Your task to perform on an android device: Clear the cart on walmart.com. Image 0: 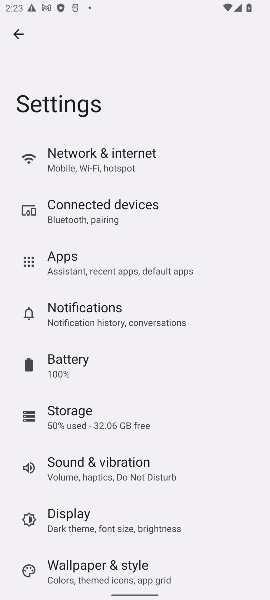
Step 0: press home button
Your task to perform on an android device: Clear the cart on walmart.com. Image 1: 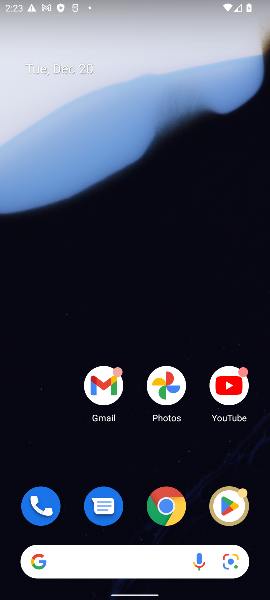
Step 1: click (165, 515)
Your task to perform on an android device: Clear the cart on walmart.com. Image 2: 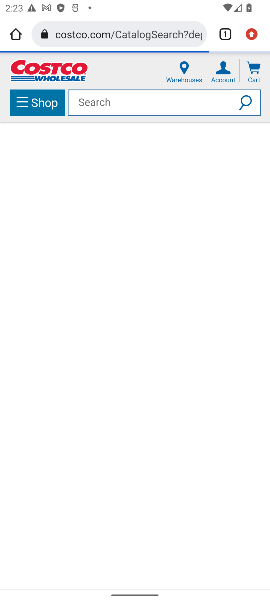
Step 2: click (114, 35)
Your task to perform on an android device: Clear the cart on walmart.com. Image 3: 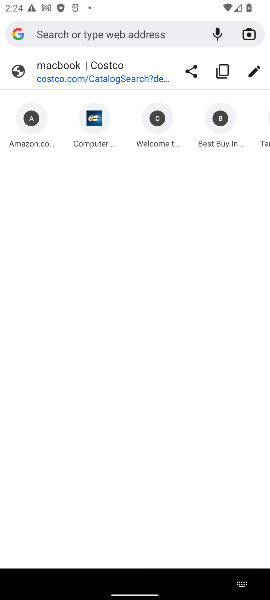
Step 3: type "walmart"
Your task to perform on an android device: Clear the cart on walmart.com. Image 4: 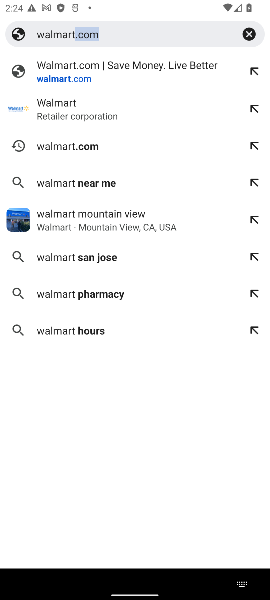
Step 4: click (139, 73)
Your task to perform on an android device: Clear the cart on walmart.com. Image 5: 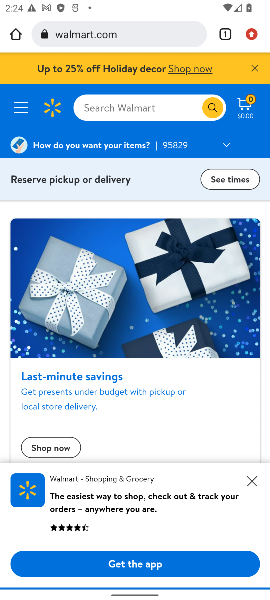
Step 5: click (254, 482)
Your task to perform on an android device: Clear the cart on walmart.com. Image 6: 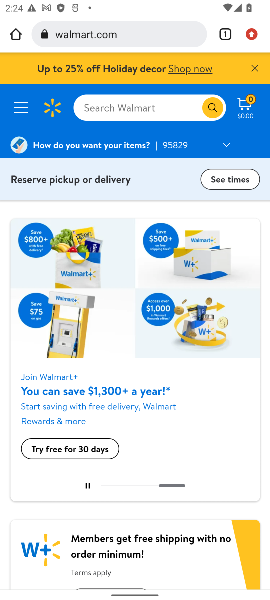
Step 6: task complete